Your task to perform on an android device: turn on translation in the chrome app Image 0: 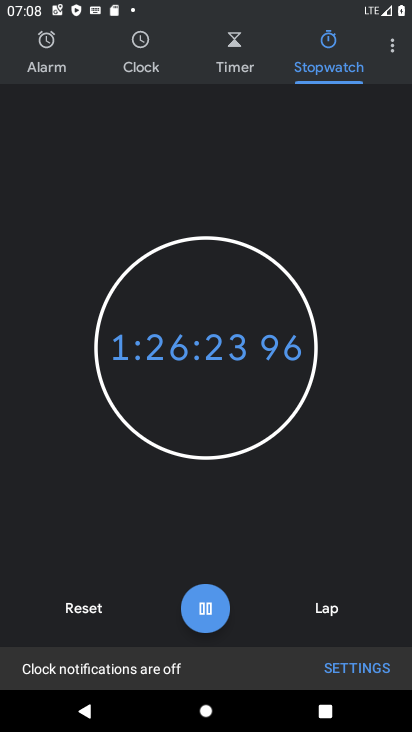
Step 0: press home button
Your task to perform on an android device: turn on translation in the chrome app Image 1: 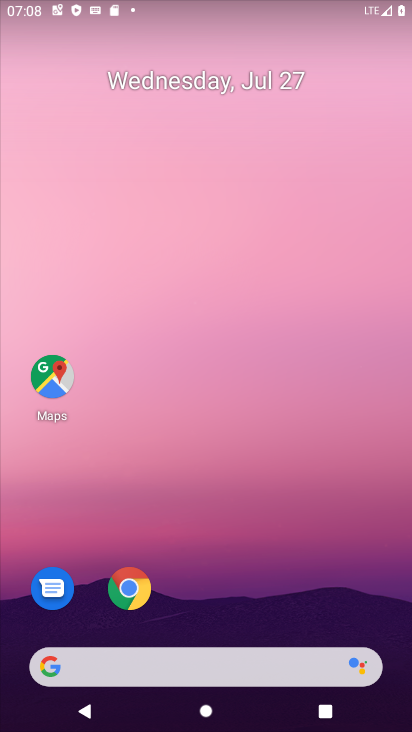
Step 1: drag from (233, 640) to (294, 9)
Your task to perform on an android device: turn on translation in the chrome app Image 2: 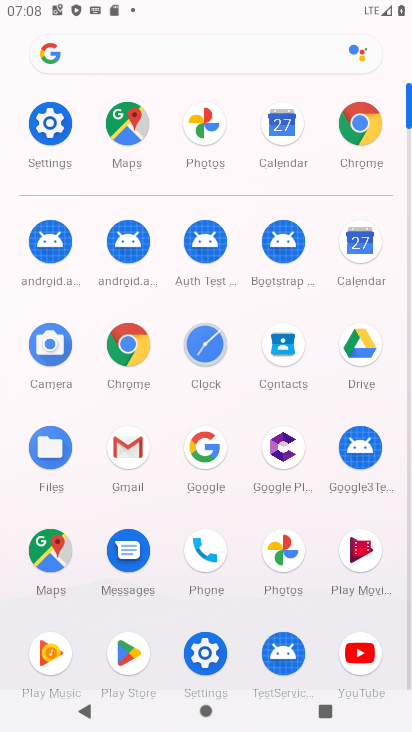
Step 2: click (141, 338)
Your task to perform on an android device: turn on translation in the chrome app Image 3: 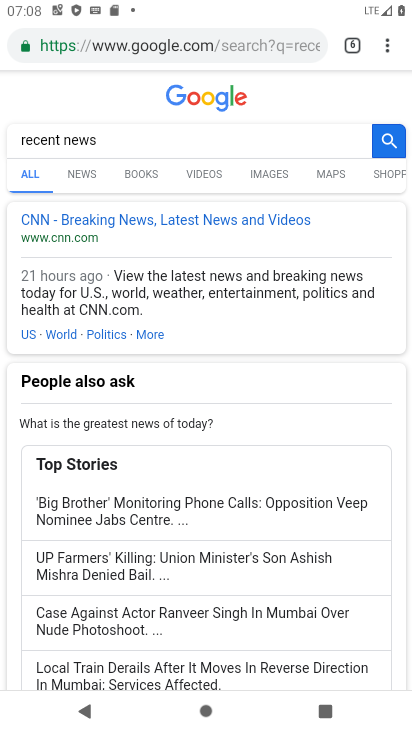
Step 3: click (385, 36)
Your task to perform on an android device: turn on translation in the chrome app Image 4: 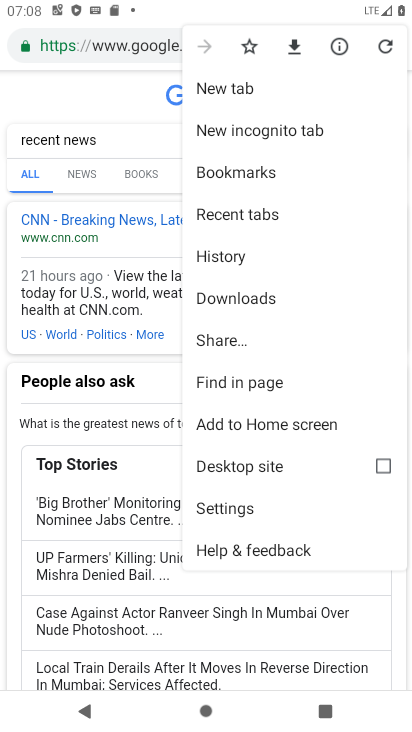
Step 4: click (264, 505)
Your task to perform on an android device: turn on translation in the chrome app Image 5: 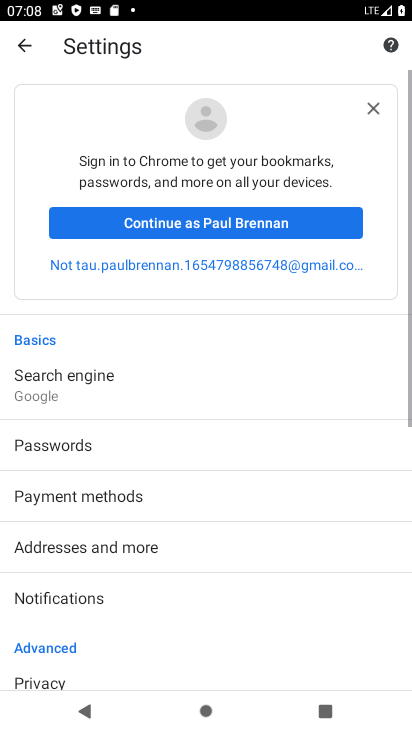
Step 5: drag from (235, 623) to (320, 53)
Your task to perform on an android device: turn on translation in the chrome app Image 6: 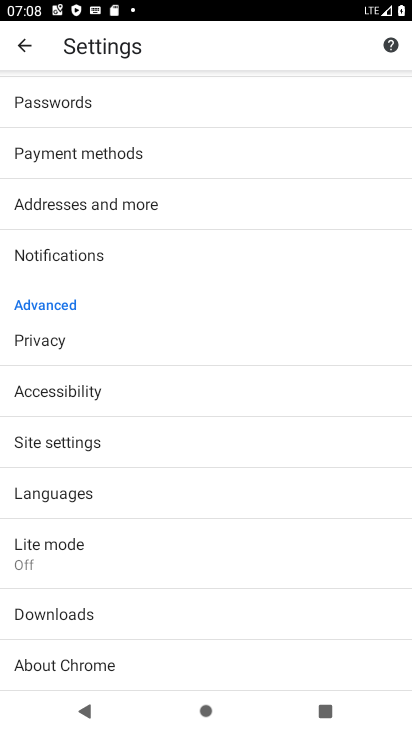
Step 6: click (103, 492)
Your task to perform on an android device: turn on translation in the chrome app Image 7: 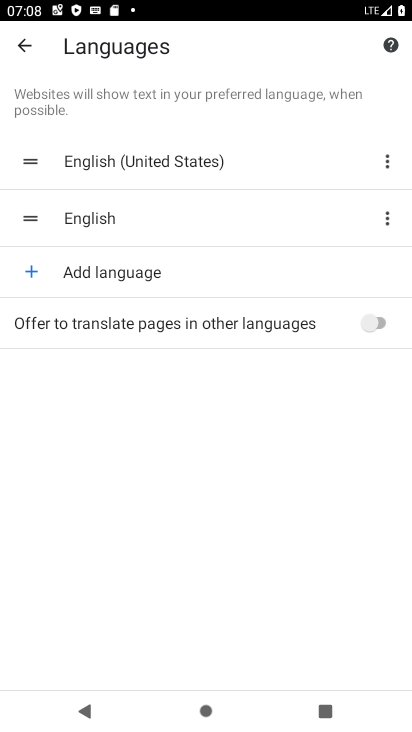
Step 7: click (383, 321)
Your task to perform on an android device: turn on translation in the chrome app Image 8: 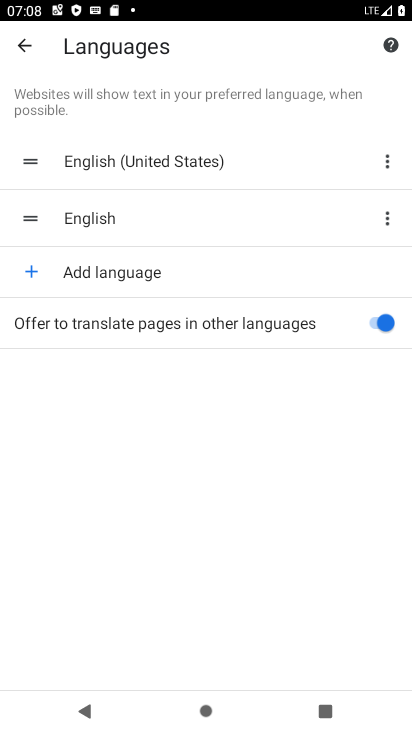
Step 8: task complete